Your task to perform on an android device: Open Google Chrome and open the bookmarks view Image 0: 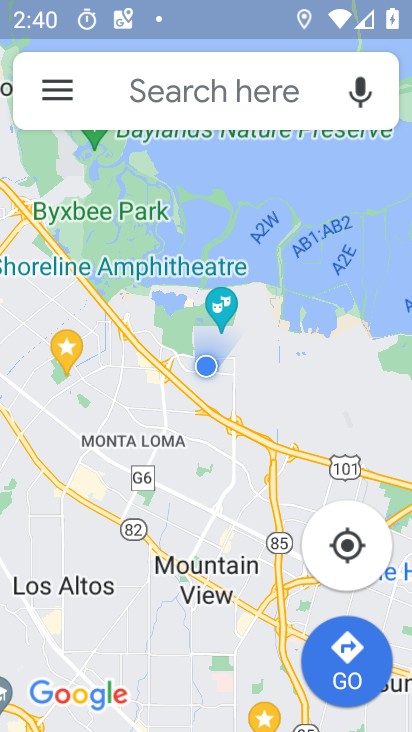
Step 0: press home button
Your task to perform on an android device: Open Google Chrome and open the bookmarks view Image 1: 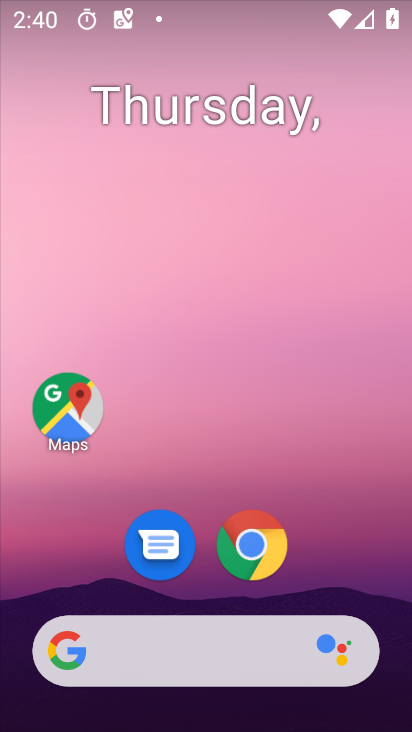
Step 1: click (248, 546)
Your task to perform on an android device: Open Google Chrome and open the bookmarks view Image 2: 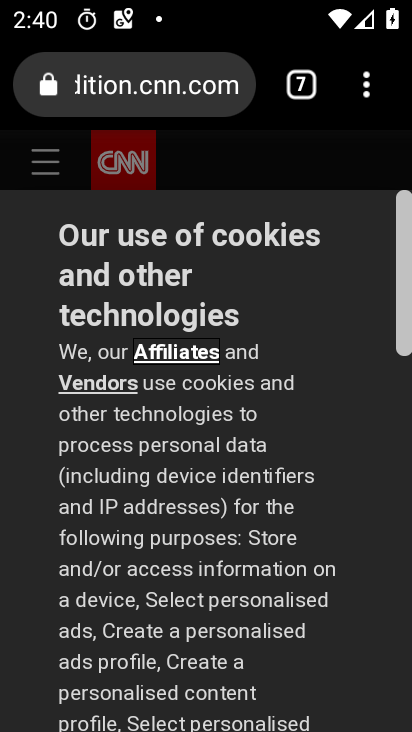
Step 2: click (366, 97)
Your task to perform on an android device: Open Google Chrome and open the bookmarks view Image 3: 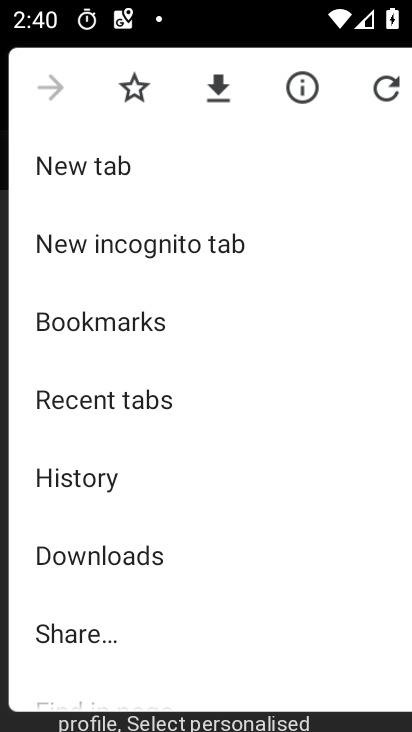
Step 3: click (111, 320)
Your task to perform on an android device: Open Google Chrome and open the bookmarks view Image 4: 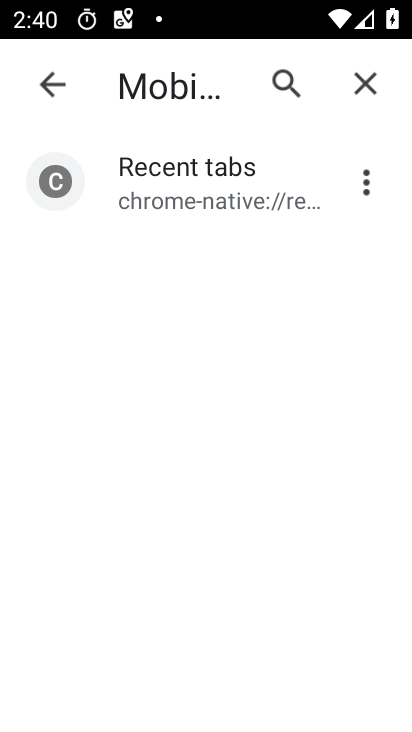
Step 4: task complete